Your task to perform on an android device: Play the last video I watched on Youtube Image 0: 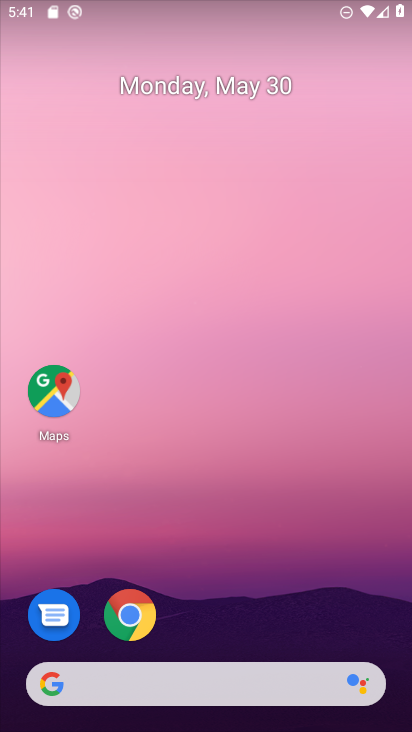
Step 0: drag from (196, 626) to (174, 95)
Your task to perform on an android device: Play the last video I watched on Youtube Image 1: 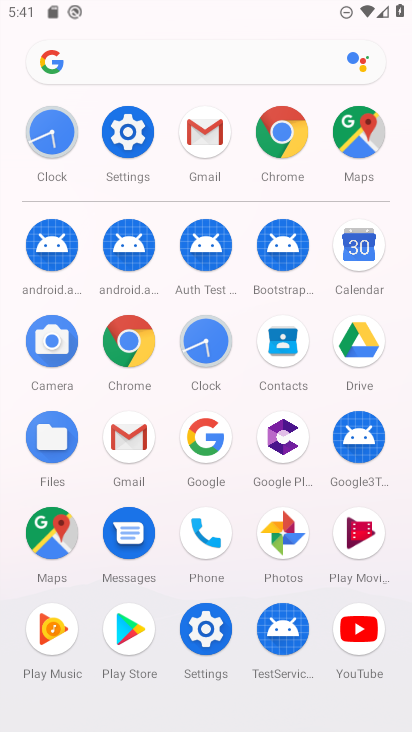
Step 1: click (375, 632)
Your task to perform on an android device: Play the last video I watched on Youtube Image 2: 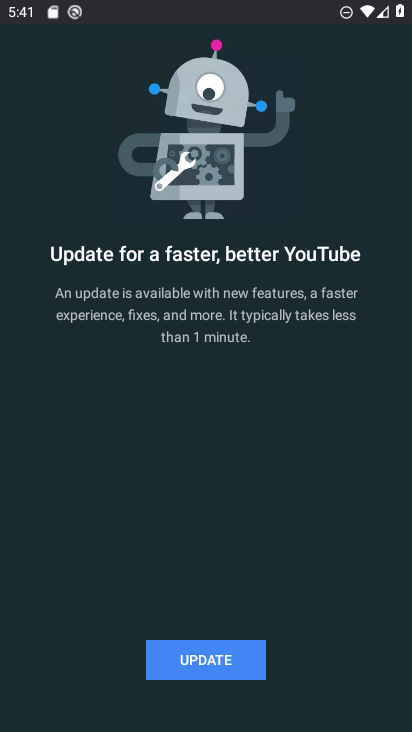
Step 2: click (234, 648)
Your task to perform on an android device: Play the last video I watched on Youtube Image 3: 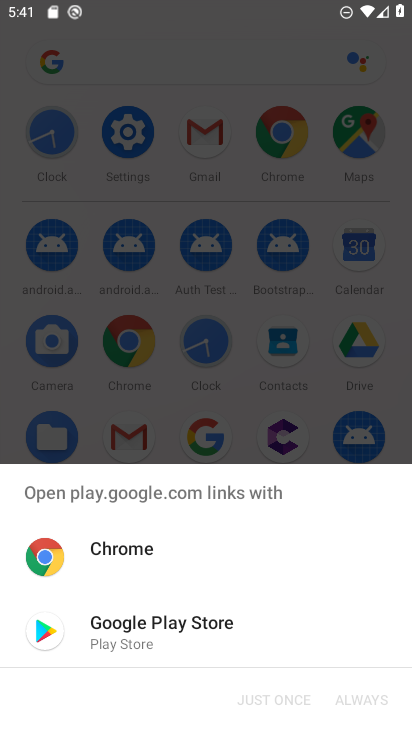
Step 3: click (140, 621)
Your task to perform on an android device: Play the last video I watched on Youtube Image 4: 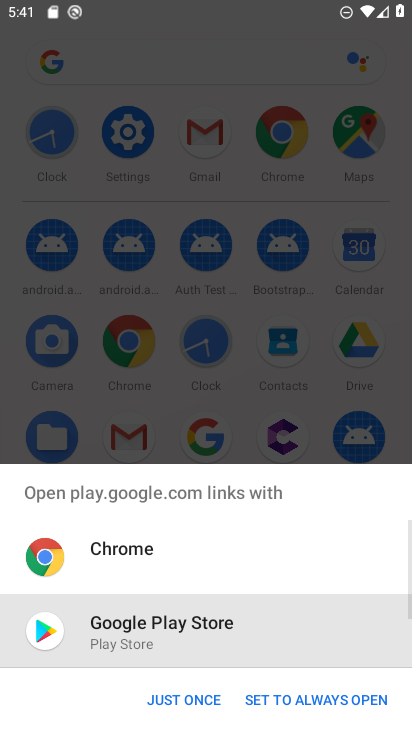
Step 4: click (193, 693)
Your task to perform on an android device: Play the last video I watched on Youtube Image 5: 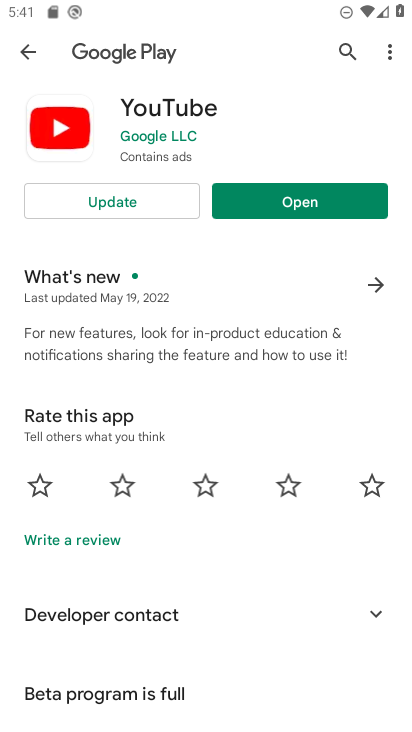
Step 5: click (173, 187)
Your task to perform on an android device: Play the last video I watched on Youtube Image 6: 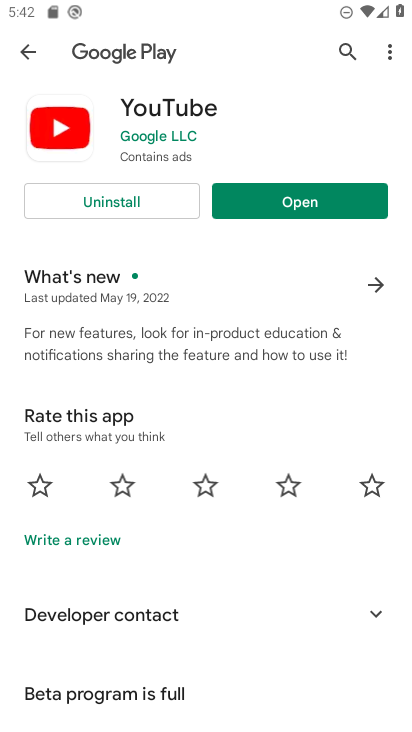
Step 6: click (289, 200)
Your task to perform on an android device: Play the last video I watched on Youtube Image 7: 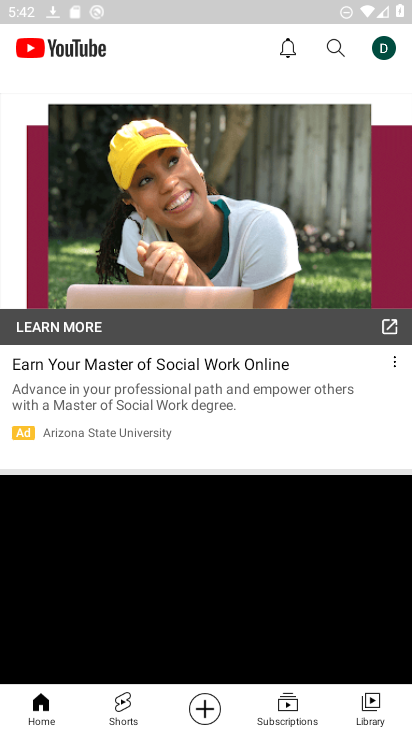
Step 7: click (375, 713)
Your task to perform on an android device: Play the last video I watched on Youtube Image 8: 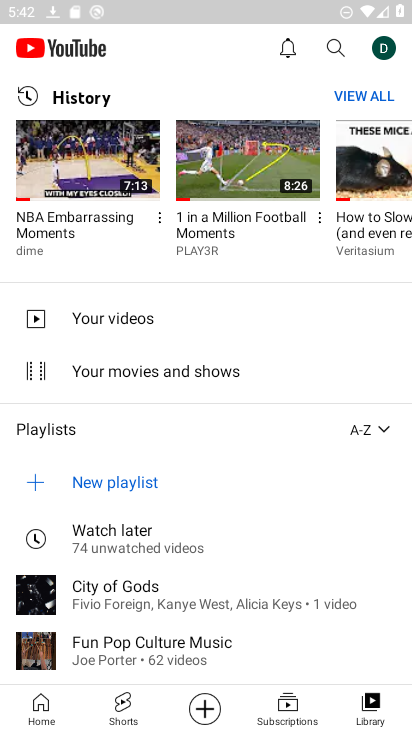
Step 8: click (98, 148)
Your task to perform on an android device: Play the last video I watched on Youtube Image 9: 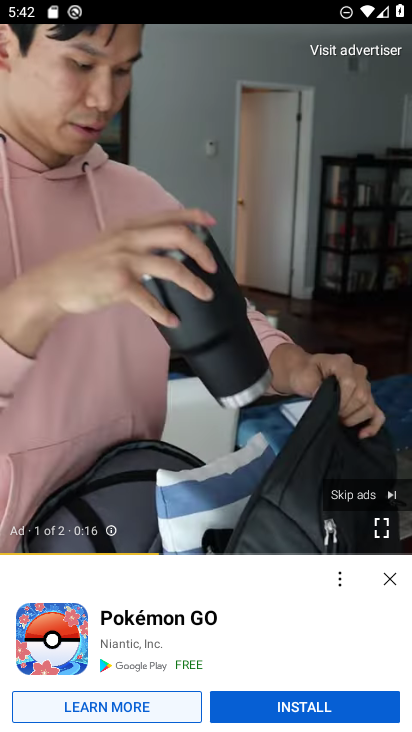
Step 9: click (395, 484)
Your task to perform on an android device: Play the last video I watched on Youtube Image 10: 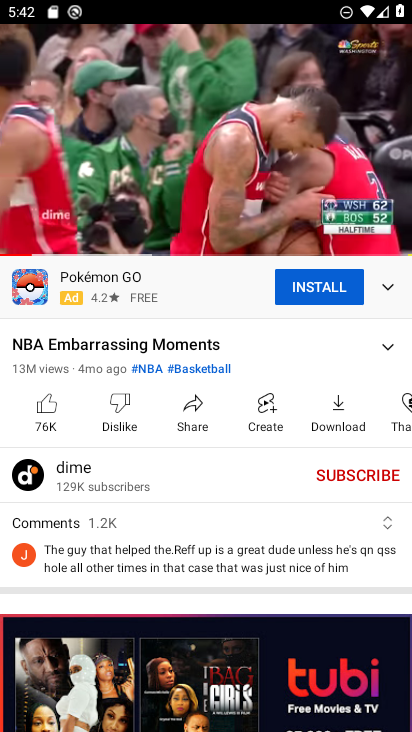
Step 10: task complete